Your task to perform on an android device: How much does the Vizio TV cost? Image 0: 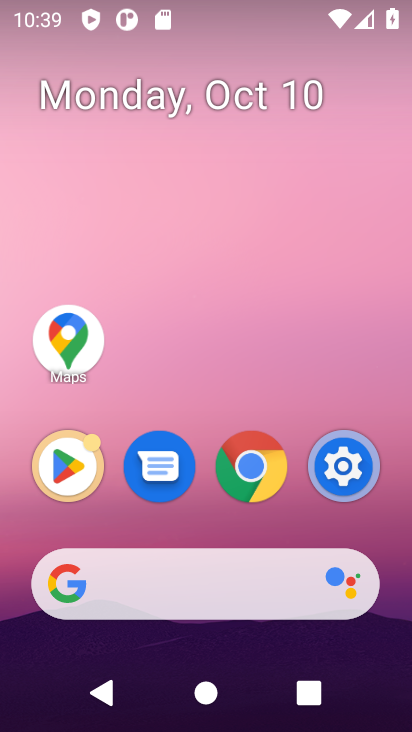
Step 0: press home button
Your task to perform on an android device: How much does the Vizio TV cost? Image 1: 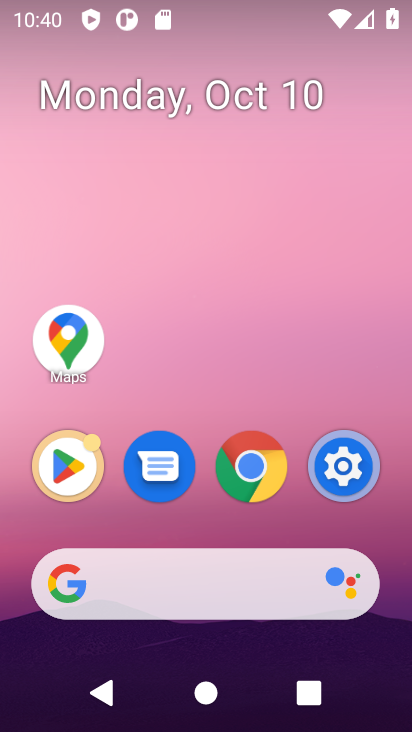
Step 1: click (70, 584)
Your task to perform on an android device: How much does the Vizio TV cost? Image 2: 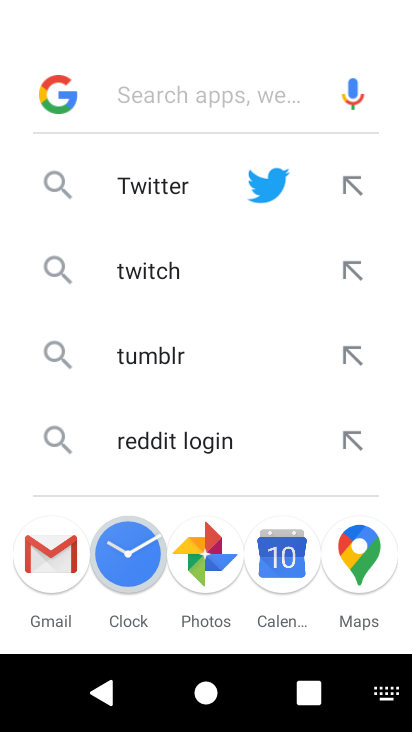
Step 2: press enter
Your task to perform on an android device: How much does the Vizio TV cost? Image 3: 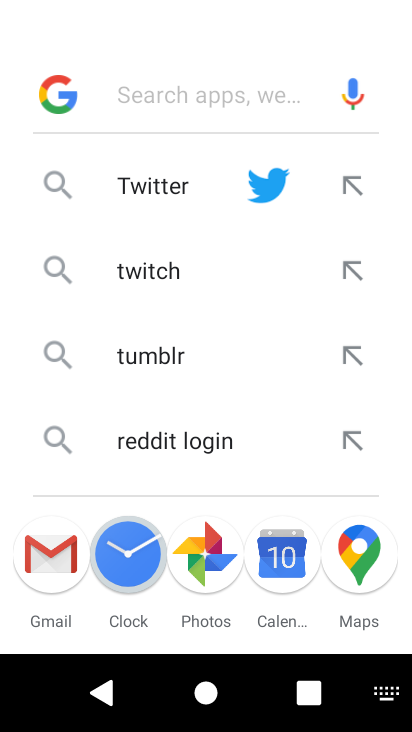
Step 3: type " Vizio TV cost"
Your task to perform on an android device: How much does the Vizio TV cost? Image 4: 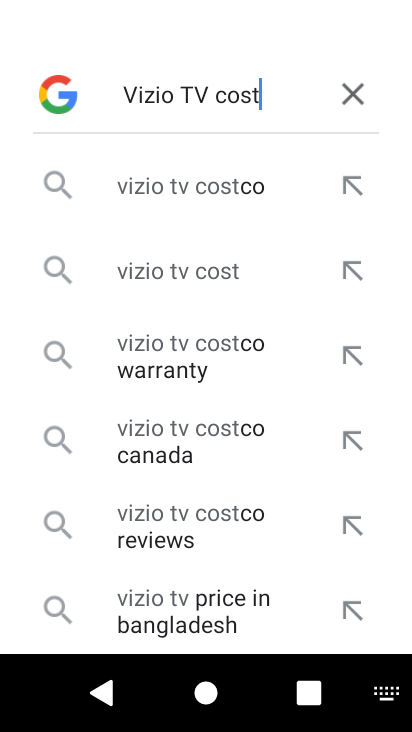
Step 4: press enter
Your task to perform on an android device: How much does the Vizio TV cost? Image 5: 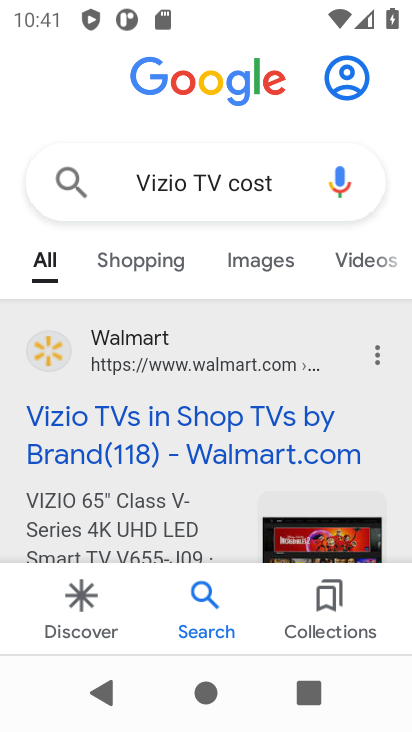
Step 5: task complete